Your task to perform on an android device: turn on javascript in the chrome app Image 0: 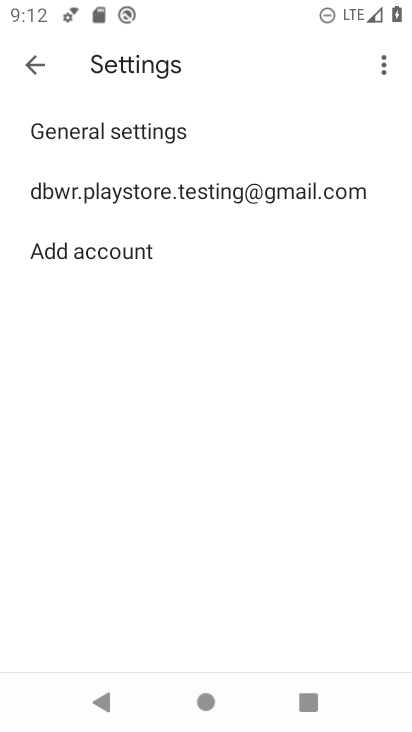
Step 0: press back button
Your task to perform on an android device: turn on javascript in the chrome app Image 1: 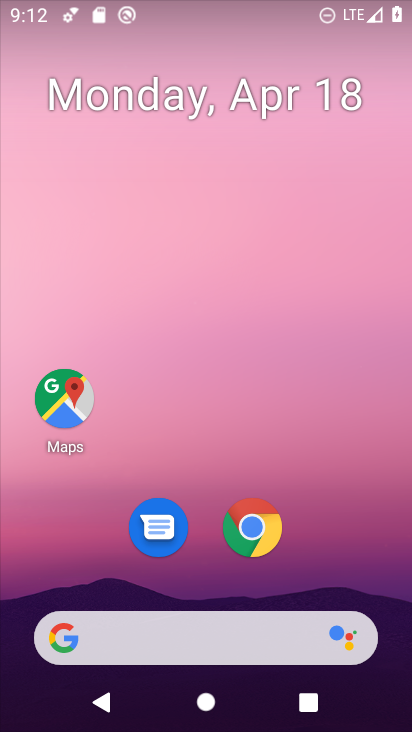
Step 1: drag from (325, 519) to (243, 13)
Your task to perform on an android device: turn on javascript in the chrome app Image 2: 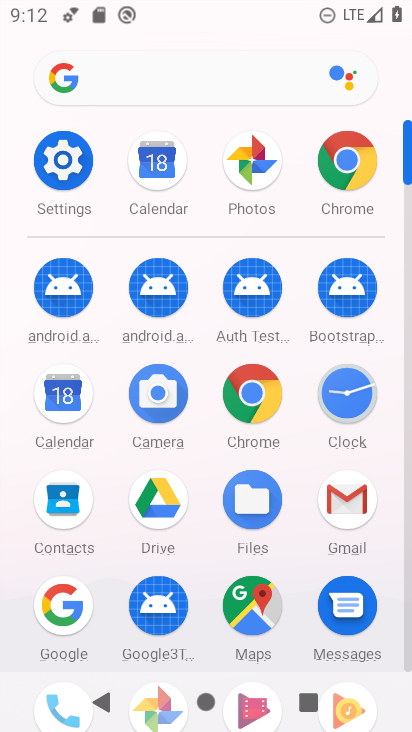
Step 2: click (348, 159)
Your task to perform on an android device: turn on javascript in the chrome app Image 3: 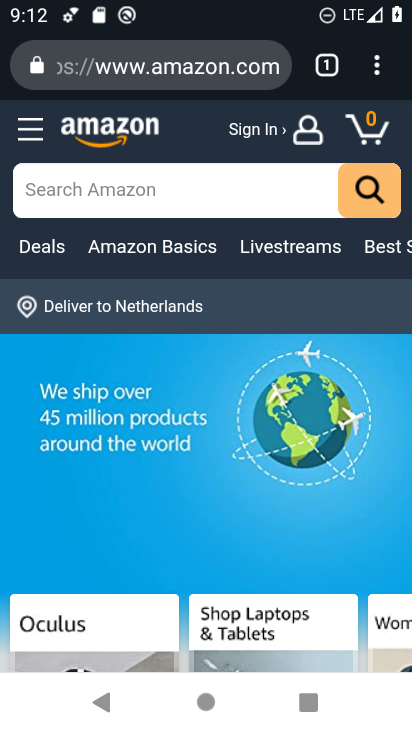
Step 3: drag from (379, 61) to (227, 563)
Your task to perform on an android device: turn on javascript in the chrome app Image 4: 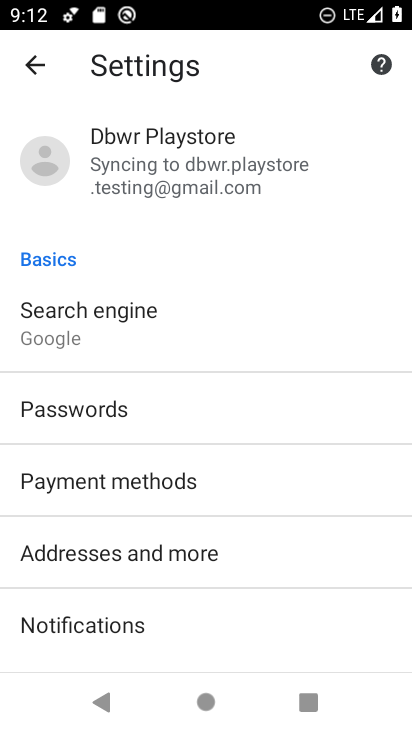
Step 4: drag from (308, 525) to (295, 213)
Your task to perform on an android device: turn on javascript in the chrome app Image 5: 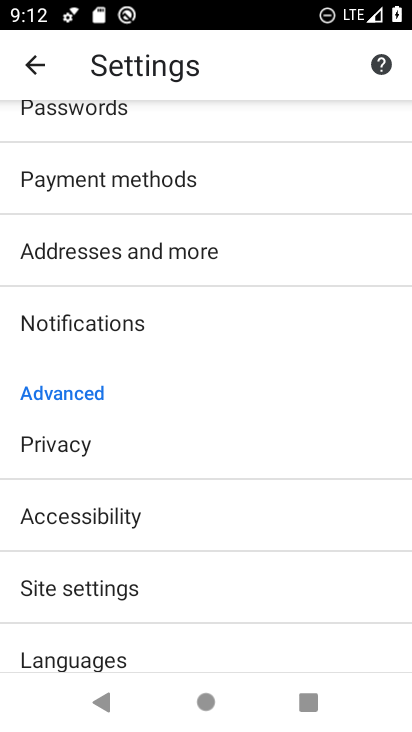
Step 5: click (132, 574)
Your task to perform on an android device: turn on javascript in the chrome app Image 6: 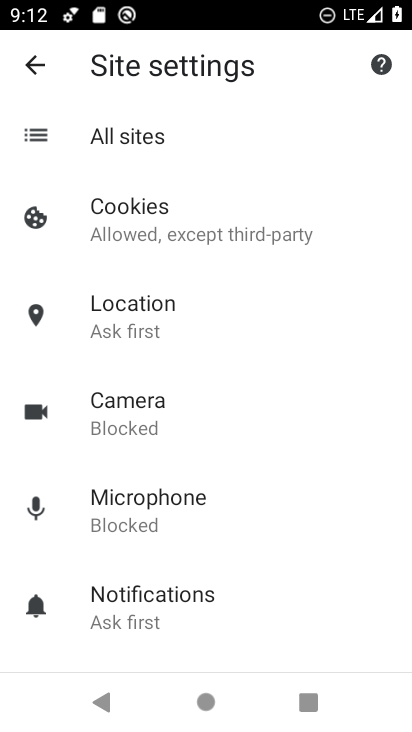
Step 6: drag from (284, 564) to (310, 206)
Your task to perform on an android device: turn on javascript in the chrome app Image 7: 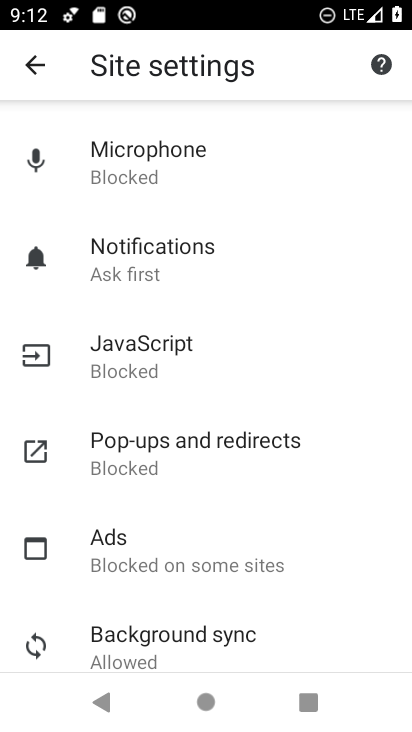
Step 7: click (193, 348)
Your task to perform on an android device: turn on javascript in the chrome app Image 8: 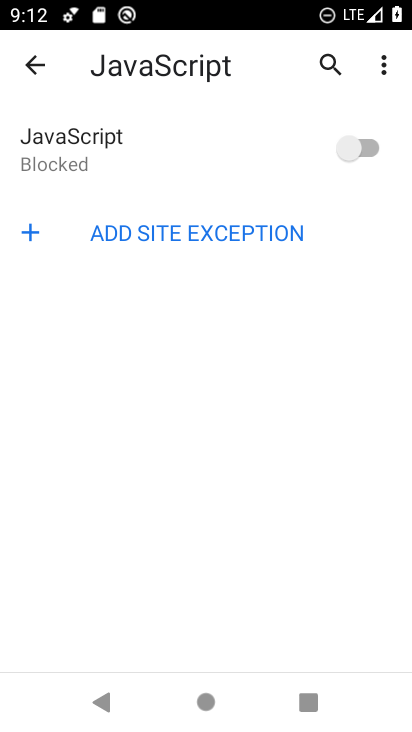
Step 8: click (356, 138)
Your task to perform on an android device: turn on javascript in the chrome app Image 9: 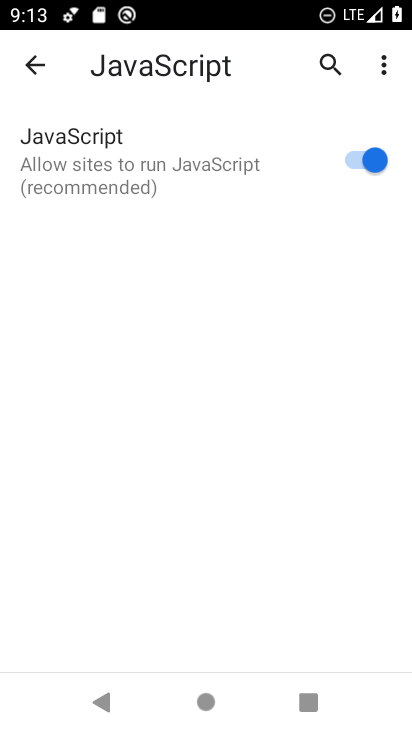
Step 9: task complete